Your task to perform on an android device: What's on my calendar today? Image 0: 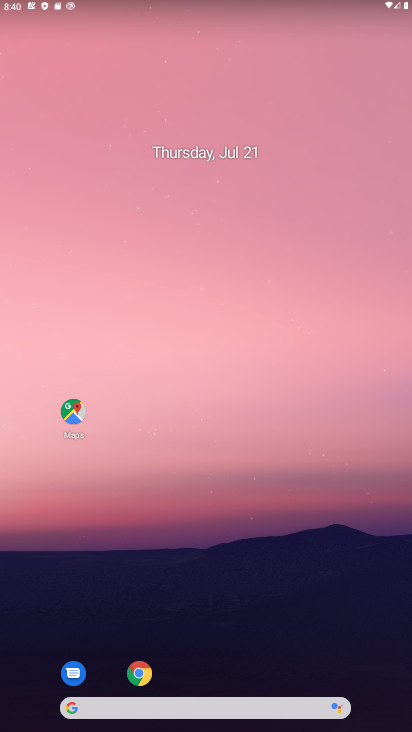
Step 0: drag from (182, 607) to (215, 5)
Your task to perform on an android device: What's on my calendar today? Image 1: 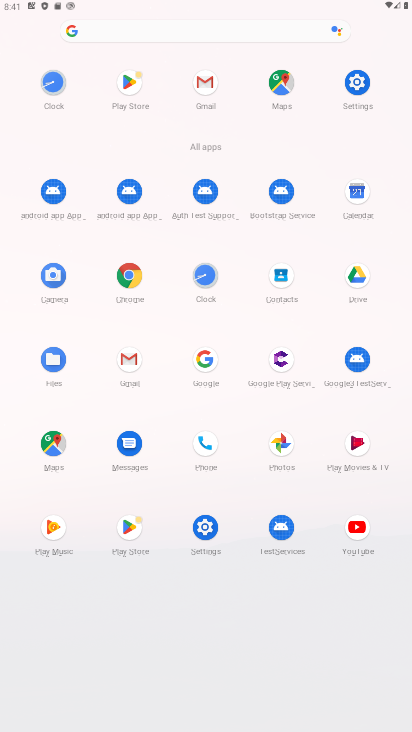
Step 1: click (357, 190)
Your task to perform on an android device: What's on my calendar today? Image 2: 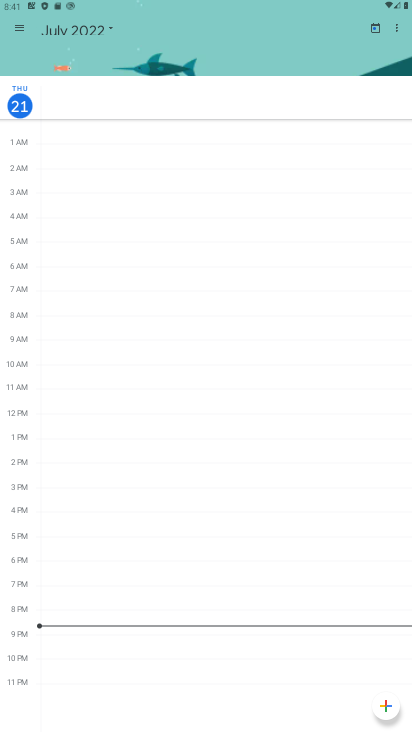
Step 2: click (14, 107)
Your task to perform on an android device: What's on my calendar today? Image 3: 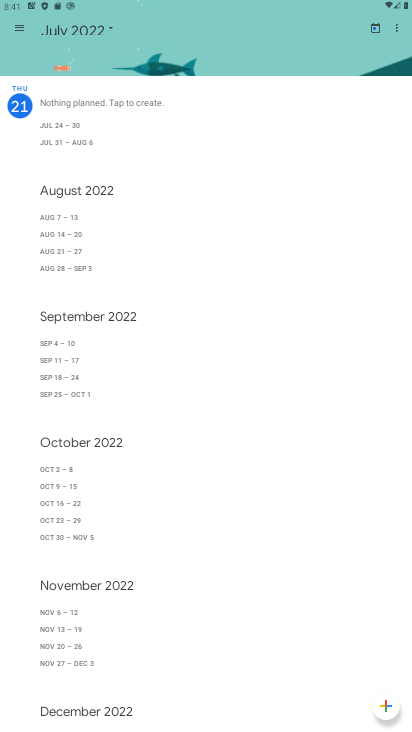
Step 3: task complete